Your task to perform on an android device: turn smart compose on in the gmail app Image 0: 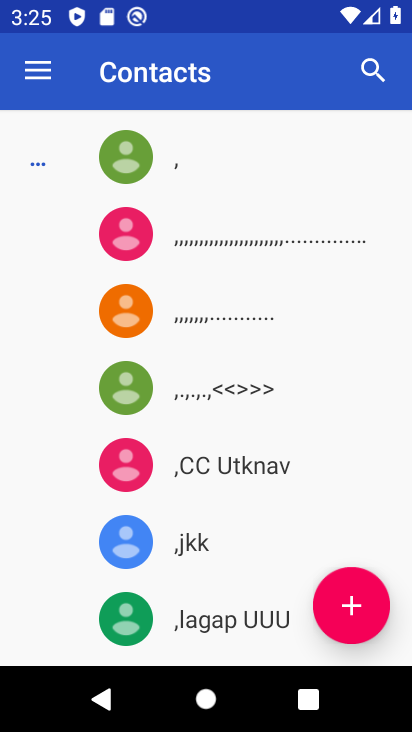
Step 0: press back button
Your task to perform on an android device: turn smart compose on in the gmail app Image 1: 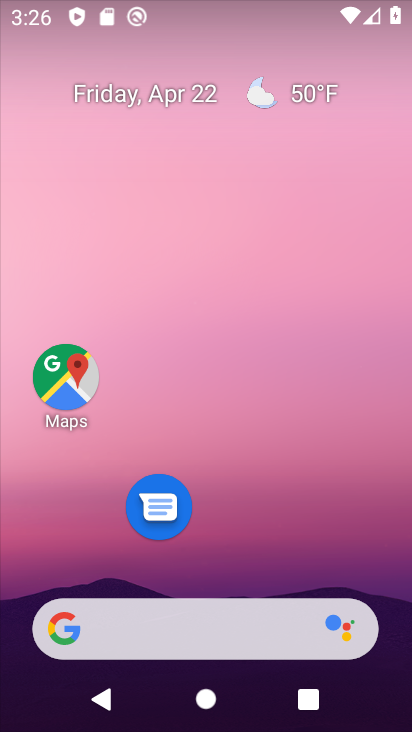
Step 1: drag from (193, 444) to (257, 61)
Your task to perform on an android device: turn smart compose on in the gmail app Image 2: 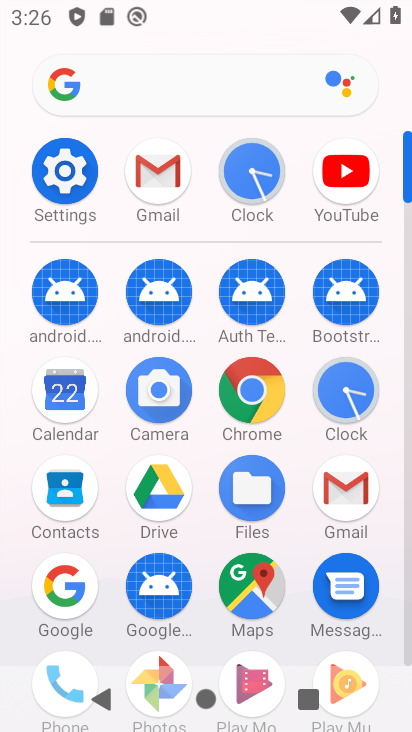
Step 2: click (153, 171)
Your task to perform on an android device: turn smart compose on in the gmail app Image 3: 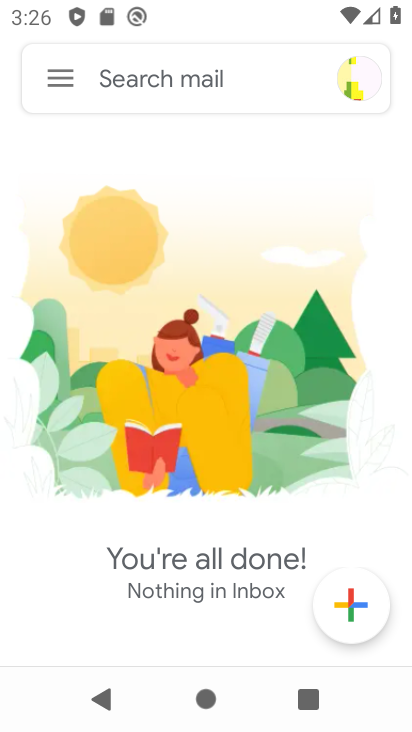
Step 3: click (71, 82)
Your task to perform on an android device: turn smart compose on in the gmail app Image 4: 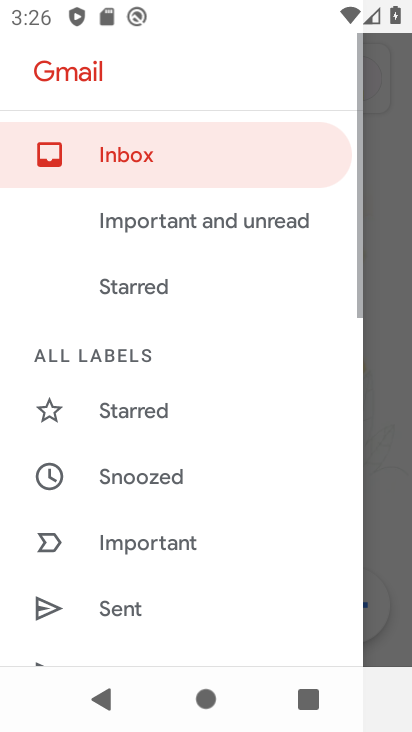
Step 4: drag from (150, 564) to (246, 96)
Your task to perform on an android device: turn smart compose on in the gmail app Image 5: 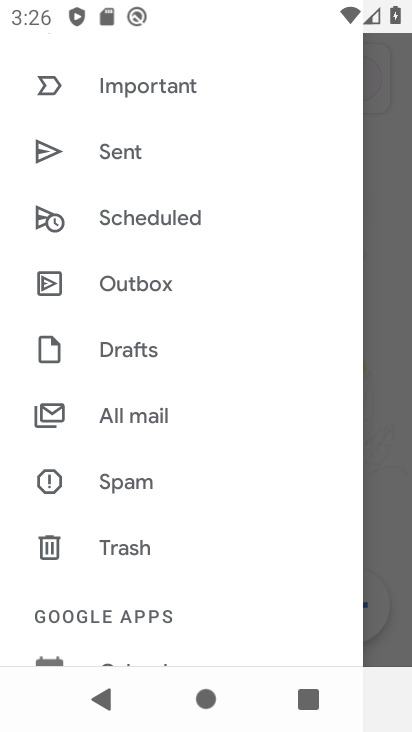
Step 5: drag from (155, 550) to (262, 73)
Your task to perform on an android device: turn smart compose on in the gmail app Image 6: 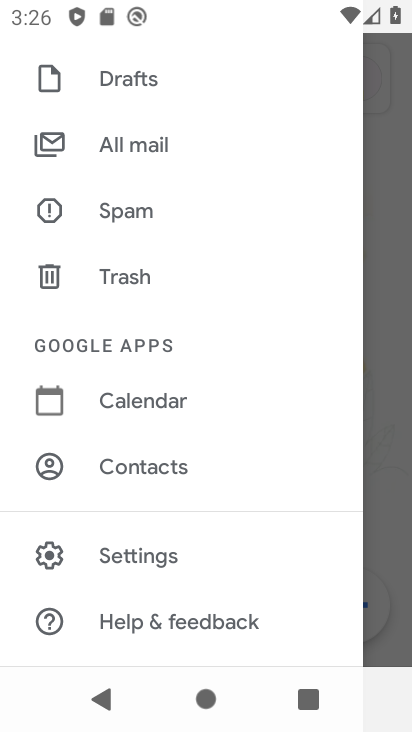
Step 6: click (140, 553)
Your task to perform on an android device: turn smart compose on in the gmail app Image 7: 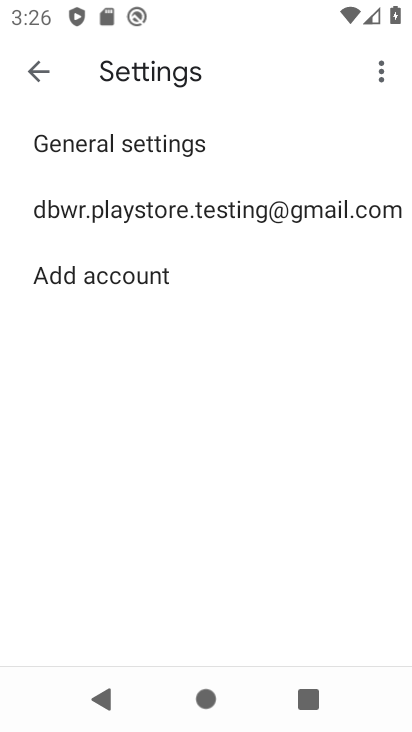
Step 7: drag from (167, 562) to (217, 240)
Your task to perform on an android device: turn smart compose on in the gmail app Image 8: 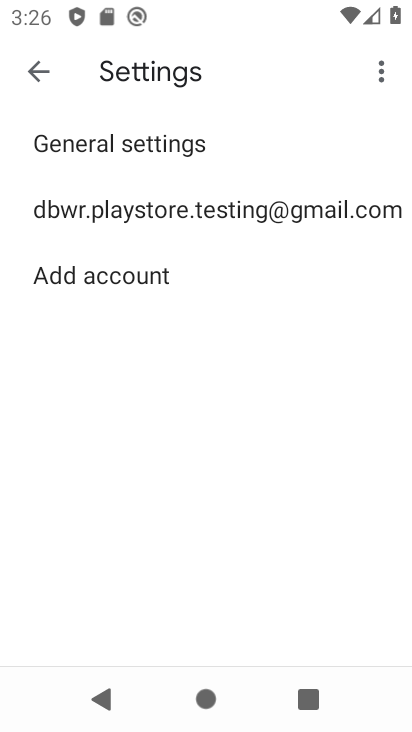
Step 8: click (205, 201)
Your task to perform on an android device: turn smart compose on in the gmail app Image 9: 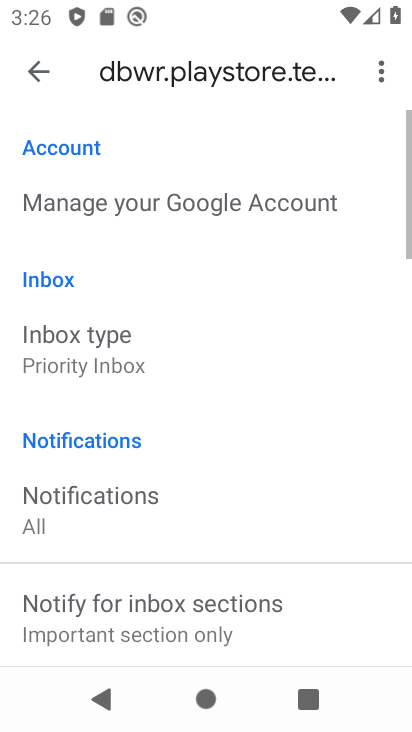
Step 9: task complete